Your task to perform on an android device: Search for seafood restaurants on Google Maps Image 0: 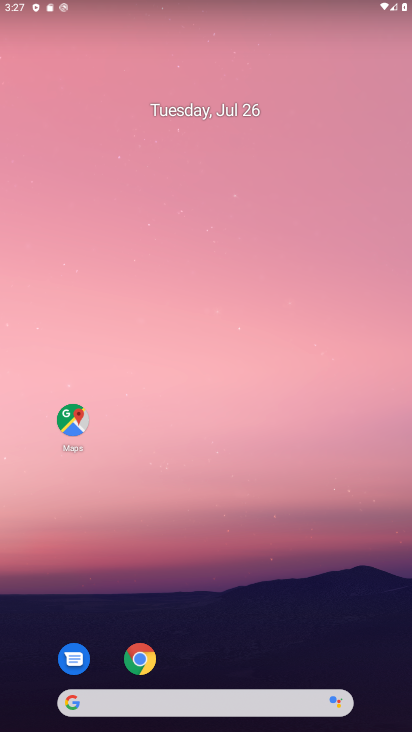
Step 0: press home button
Your task to perform on an android device: Search for seafood restaurants on Google Maps Image 1: 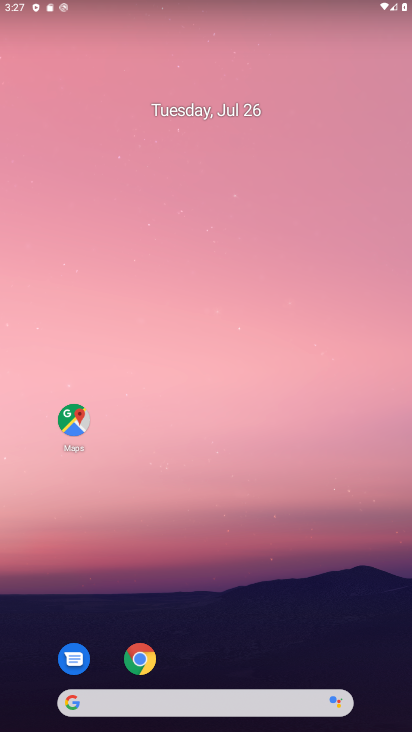
Step 1: click (66, 416)
Your task to perform on an android device: Search for seafood restaurants on Google Maps Image 2: 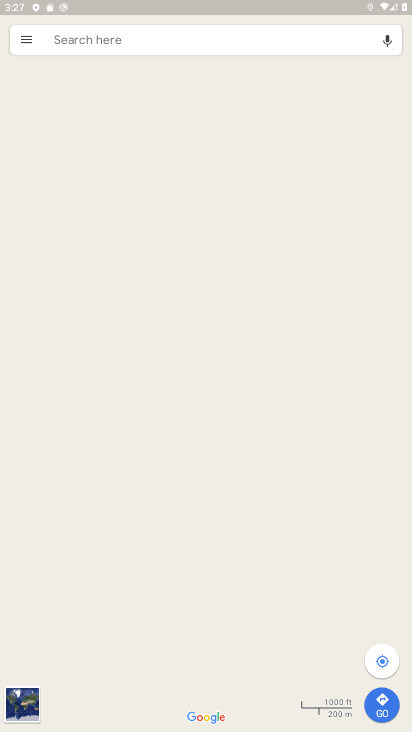
Step 2: click (163, 44)
Your task to perform on an android device: Search for seafood restaurants on Google Maps Image 3: 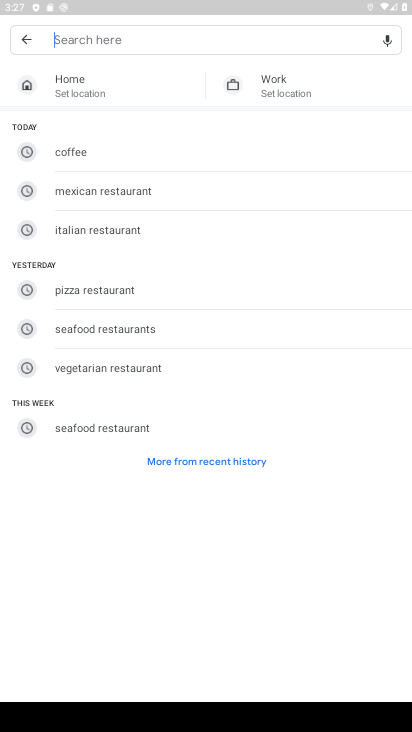
Step 3: type "seafood restaurants"
Your task to perform on an android device: Search for seafood restaurants on Google Maps Image 4: 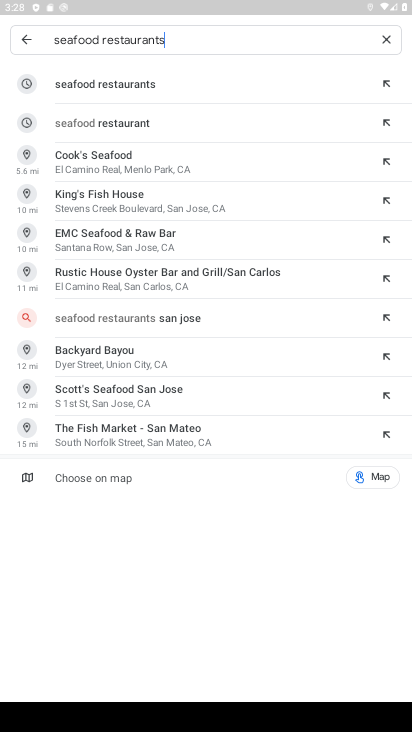
Step 4: click (88, 74)
Your task to perform on an android device: Search for seafood restaurants on Google Maps Image 5: 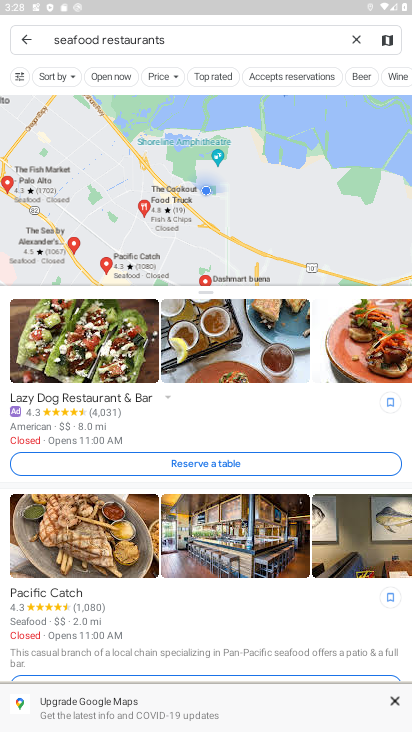
Step 5: task complete